Your task to perform on an android device: Open Android settings Image 0: 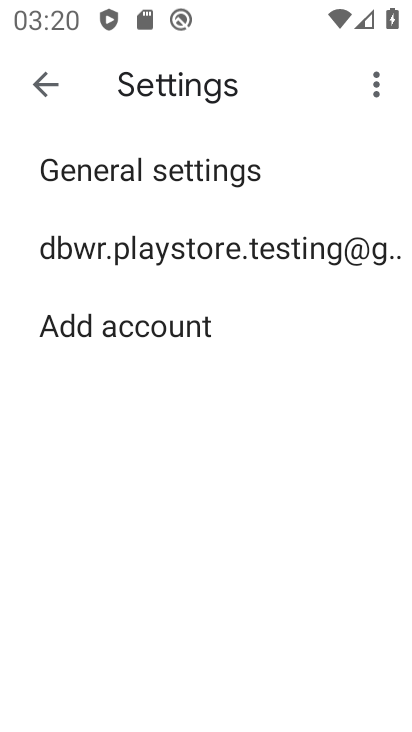
Step 0: press back button
Your task to perform on an android device: Open Android settings Image 1: 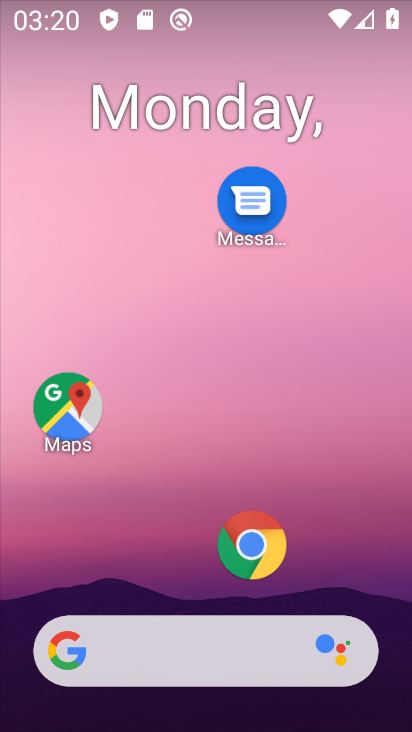
Step 1: drag from (182, 592) to (295, 114)
Your task to perform on an android device: Open Android settings Image 2: 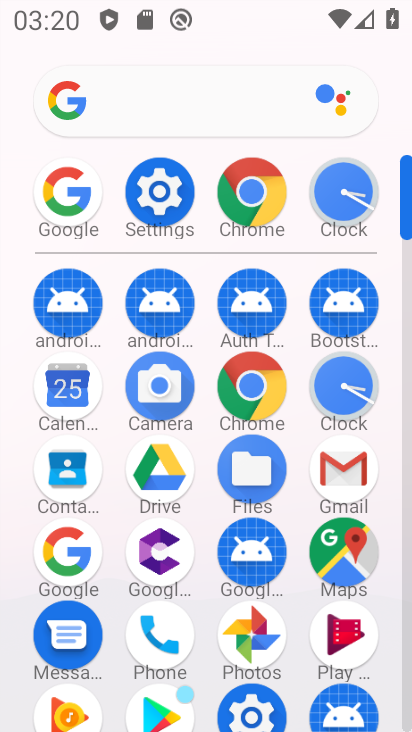
Step 2: click (168, 200)
Your task to perform on an android device: Open Android settings Image 3: 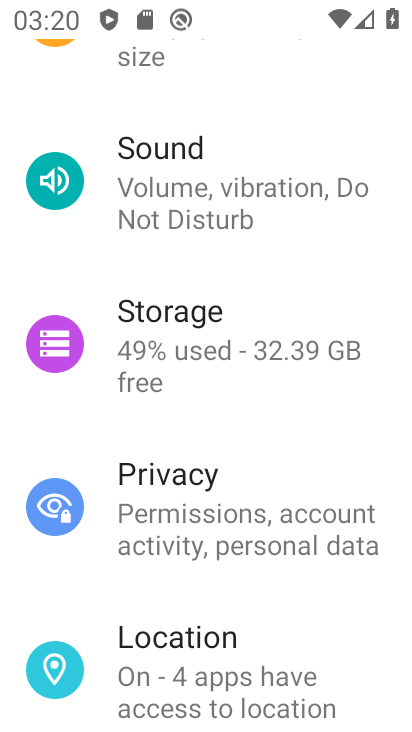
Step 3: drag from (223, 569) to (323, 93)
Your task to perform on an android device: Open Android settings Image 4: 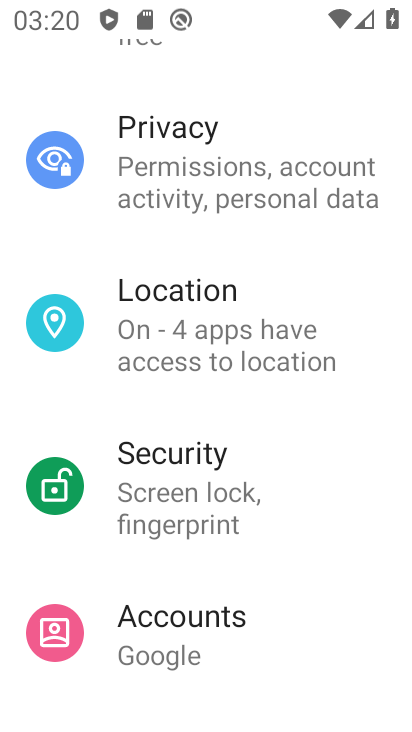
Step 4: drag from (178, 621) to (336, 92)
Your task to perform on an android device: Open Android settings Image 5: 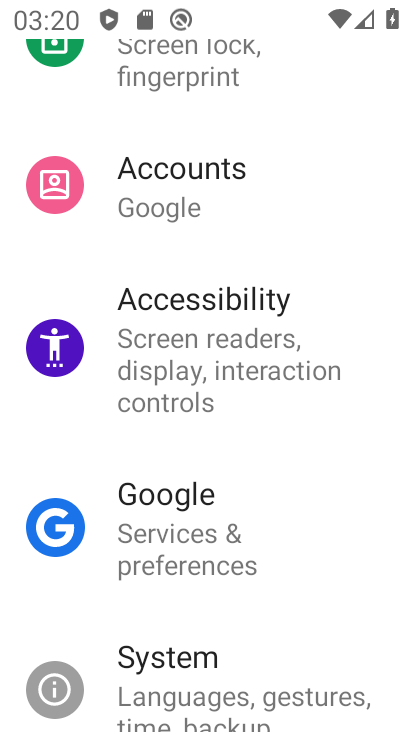
Step 5: drag from (176, 668) to (328, 128)
Your task to perform on an android device: Open Android settings Image 6: 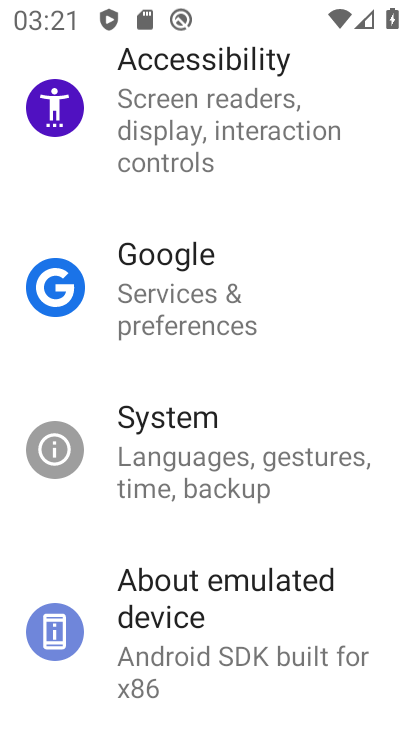
Step 6: drag from (195, 611) to (307, 102)
Your task to perform on an android device: Open Android settings Image 7: 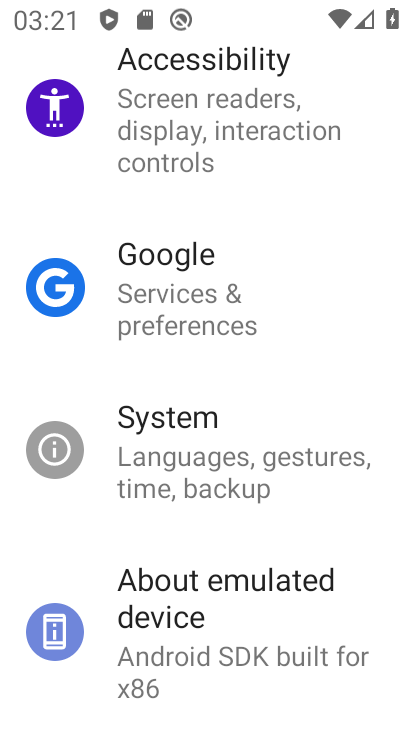
Step 7: click (204, 612)
Your task to perform on an android device: Open Android settings Image 8: 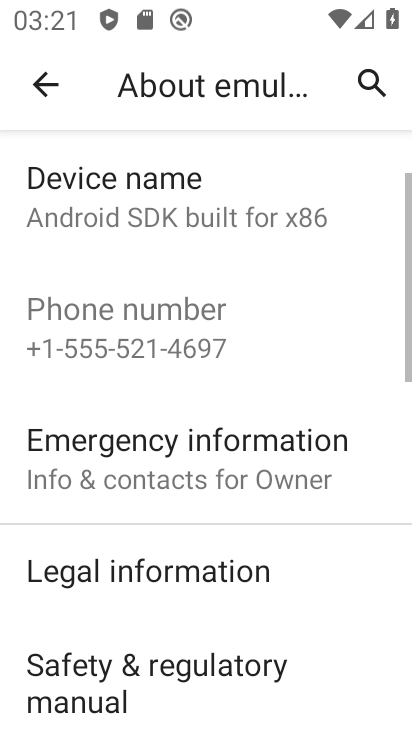
Step 8: drag from (162, 712) to (338, 104)
Your task to perform on an android device: Open Android settings Image 9: 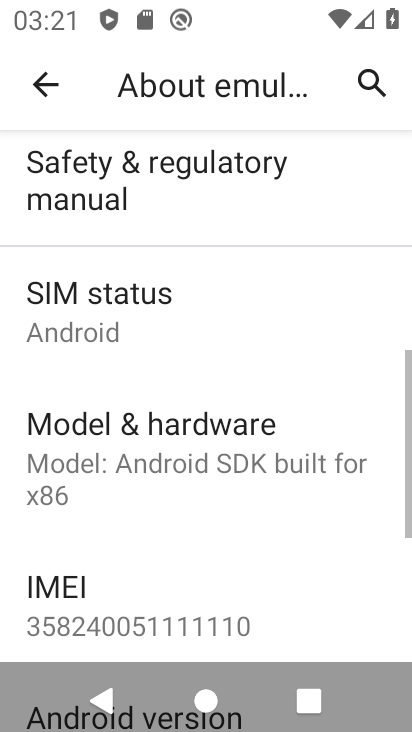
Step 9: click (100, 302)
Your task to perform on an android device: Open Android settings Image 10: 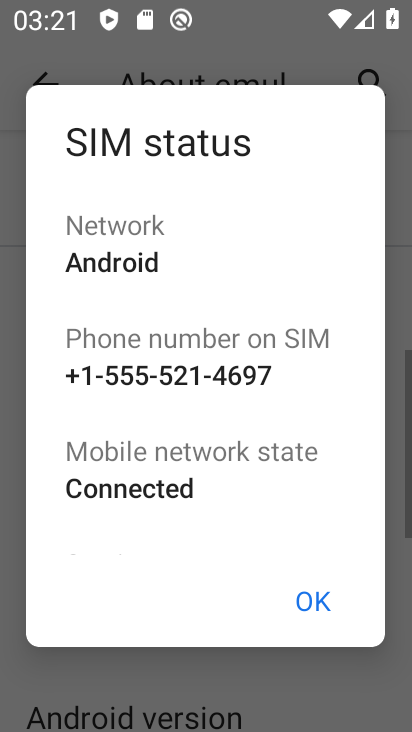
Step 10: click (304, 609)
Your task to perform on an android device: Open Android settings Image 11: 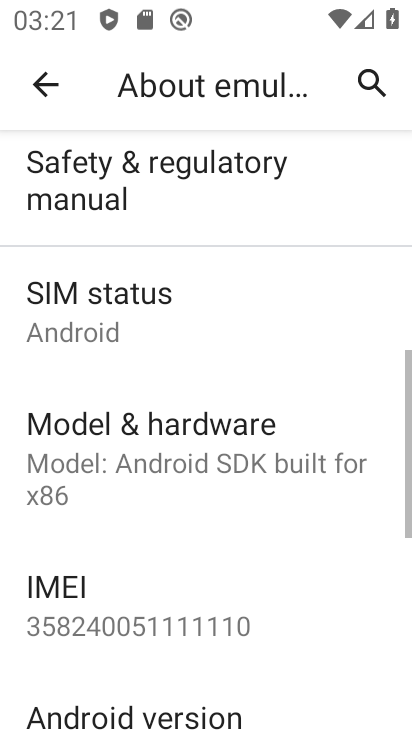
Step 11: task complete